Your task to perform on an android device: turn on the 12-hour format for clock Image 0: 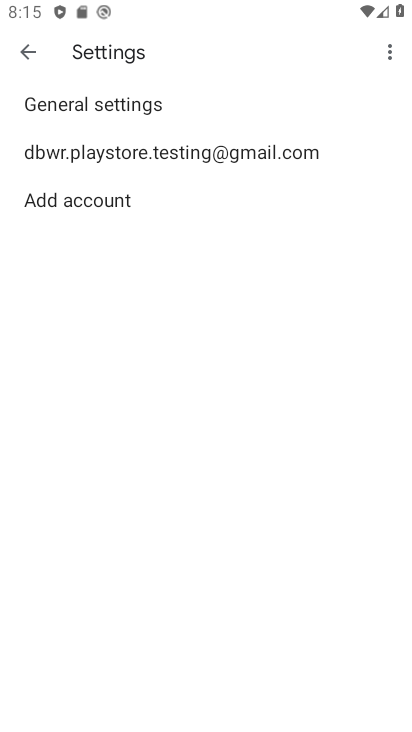
Step 0: press home button
Your task to perform on an android device: turn on the 12-hour format for clock Image 1: 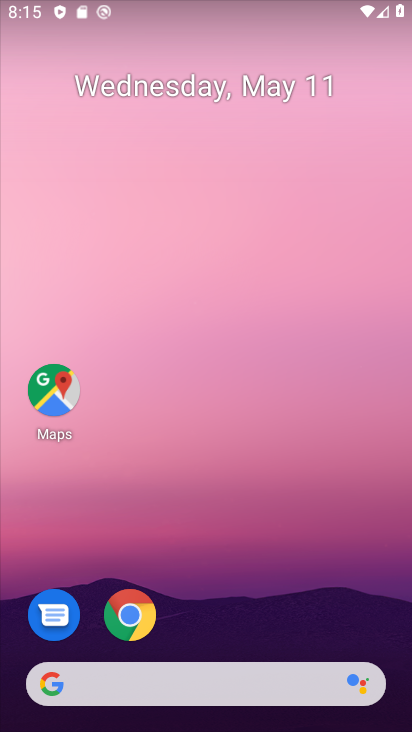
Step 1: drag from (251, 528) to (170, 73)
Your task to perform on an android device: turn on the 12-hour format for clock Image 2: 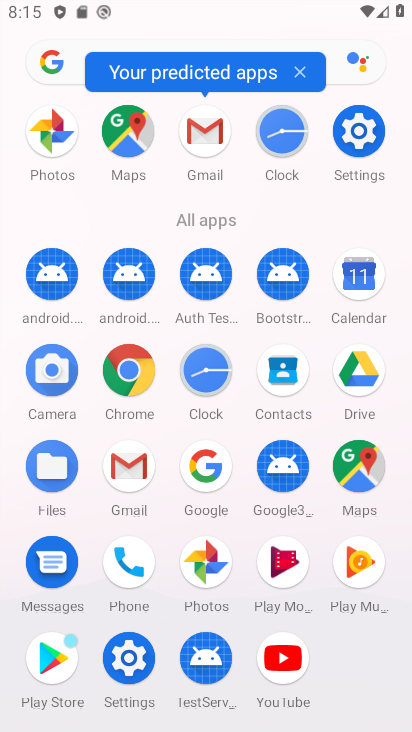
Step 2: click (285, 146)
Your task to perform on an android device: turn on the 12-hour format for clock Image 3: 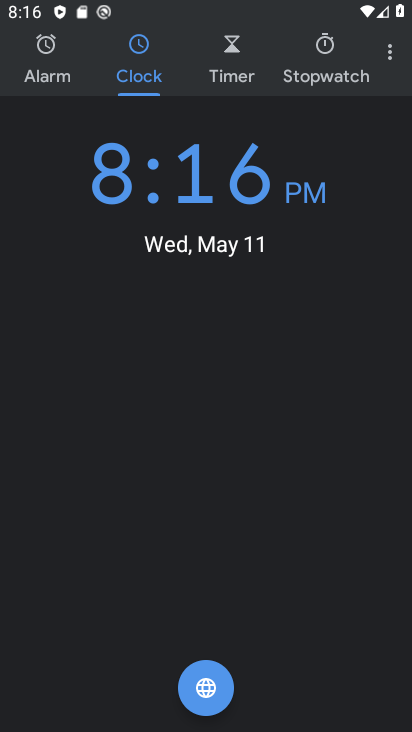
Step 3: click (391, 73)
Your task to perform on an android device: turn on the 12-hour format for clock Image 4: 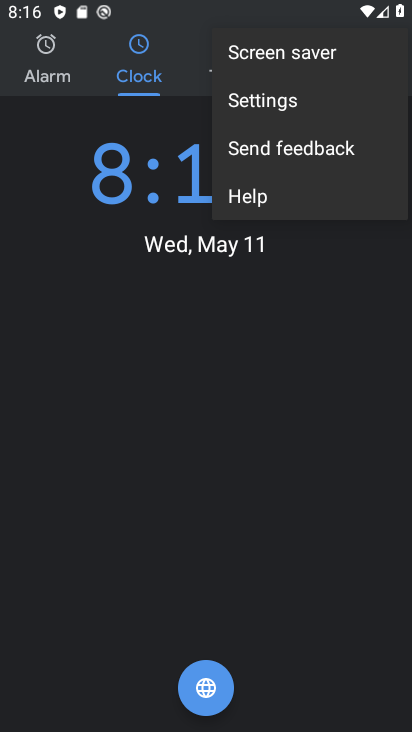
Step 4: click (250, 107)
Your task to perform on an android device: turn on the 12-hour format for clock Image 5: 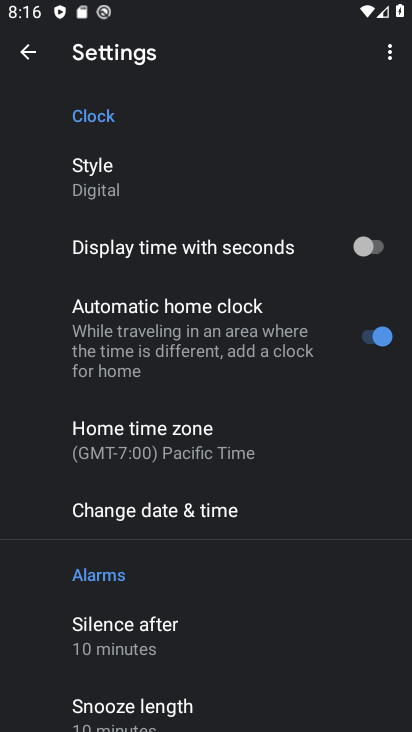
Step 5: click (181, 507)
Your task to perform on an android device: turn on the 12-hour format for clock Image 6: 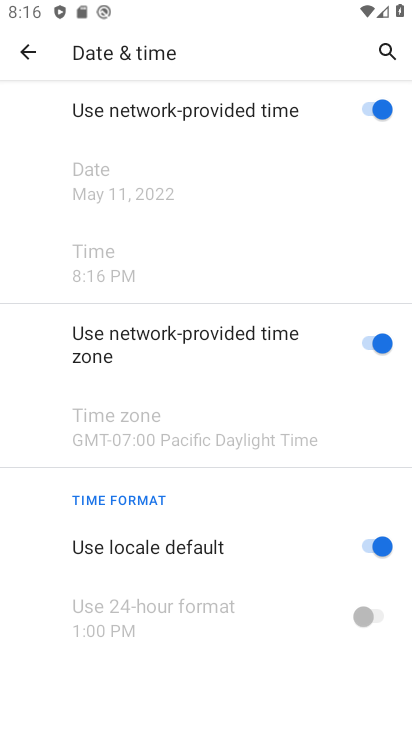
Step 6: task complete